Your task to perform on an android device: turn off airplane mode Image 0: 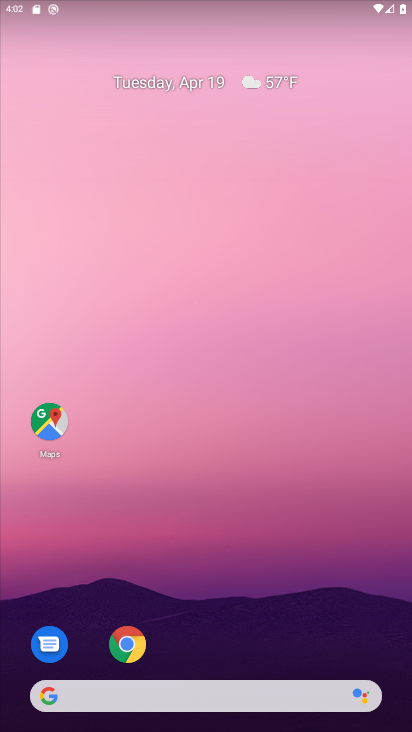
Step 0: drag from (254, 559) to (215, 136)
Your task to perform on an android device: turn off airplane mode Image 1: 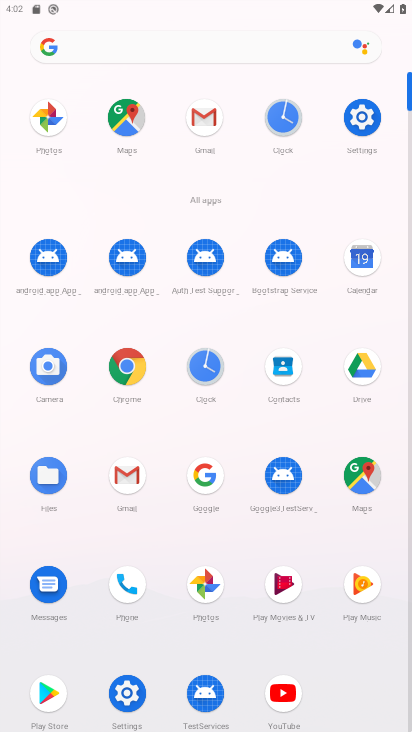
Step 1: drag from (230, 607) to (262, 111)
Your task to perform on an android device: turn off airplane mode Image 2: 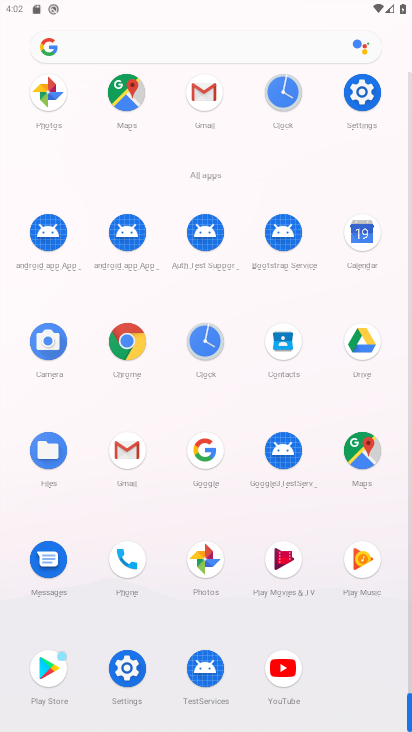
Step 2: click (366, 100)
Your task to perform on an android device: turn off airplane mode Image 3: 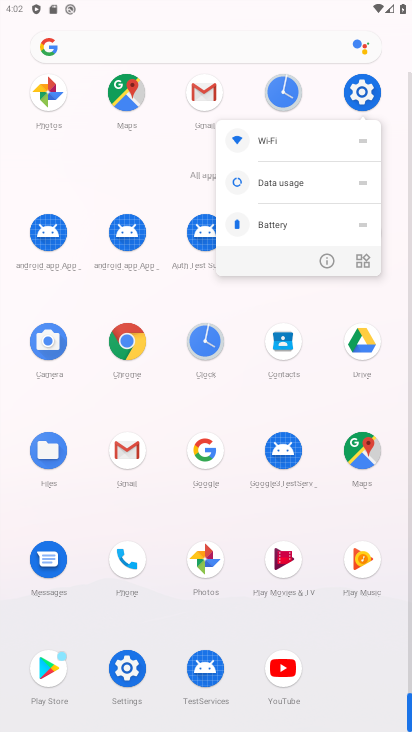
Step 3: click (356, 98)
Your task to perform on an android device: turn off airplane mode Image 4: 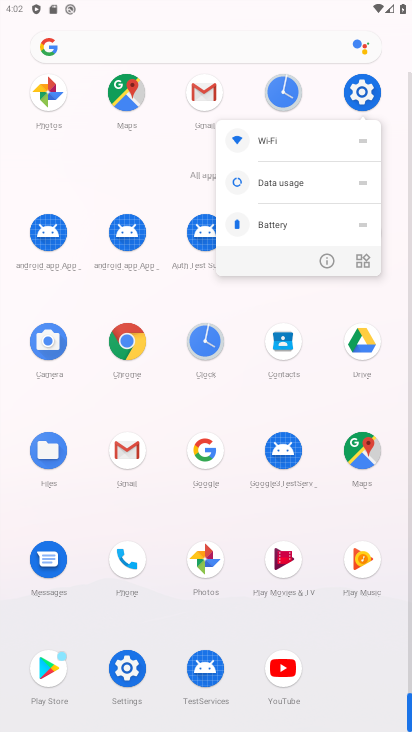
Step 4: click (357, 98)
Your task to perform on an android device: turn off airplane mode Image 5: 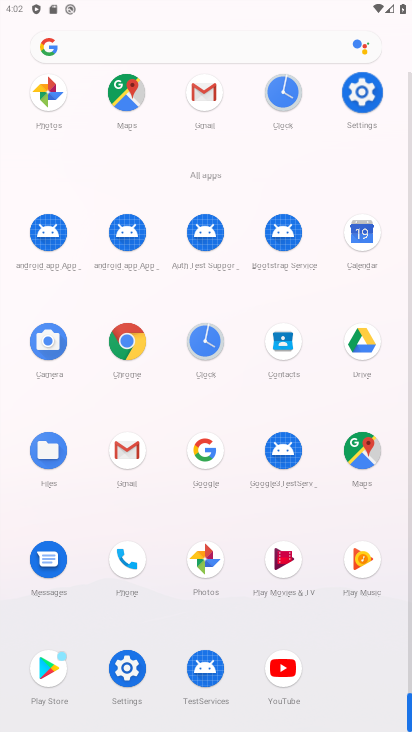
Step 5: click (364, 91)
Your task to perform on an android device: turn off airplane mode Image 6: 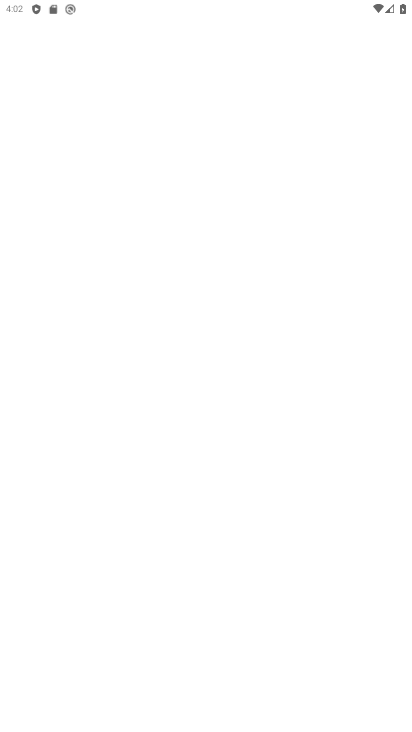
Step 6: click (364, 91)
Your task to perform on an android device: turn off airplane mode Image 7: 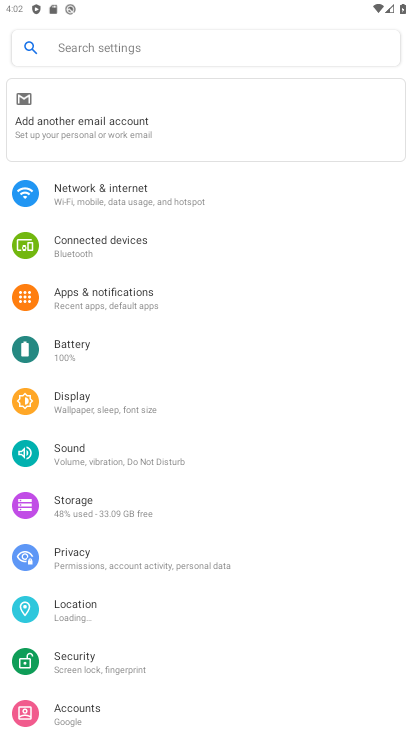
Step 7: drag from (246, 164) to (181, 441)
Your task to perform on an android device: turn off airplane mode Image 8: 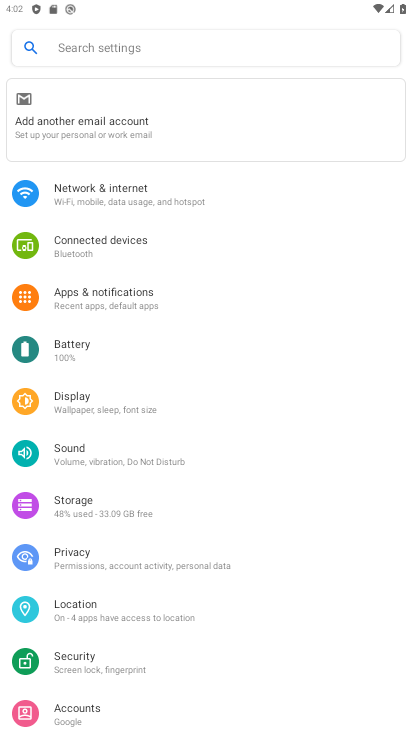
Step 8: click (151, 194)
Your task to perform on an android device: turn off airplane mode Image 9: 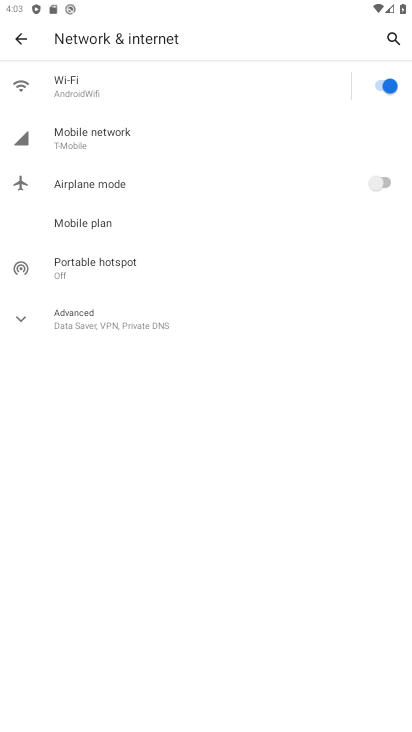
Step 9: click (379, 90)
Your task to perform on an android device: turn off airplane mode Image 10: 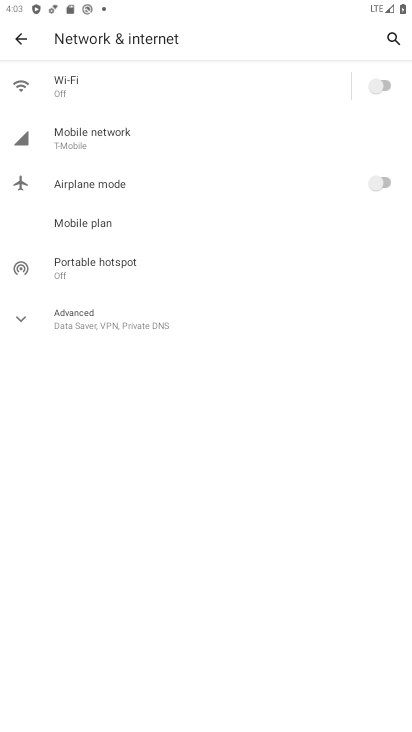
Step 10: task complete